Your task to perform on an android device: Go to sound settings Image 0: 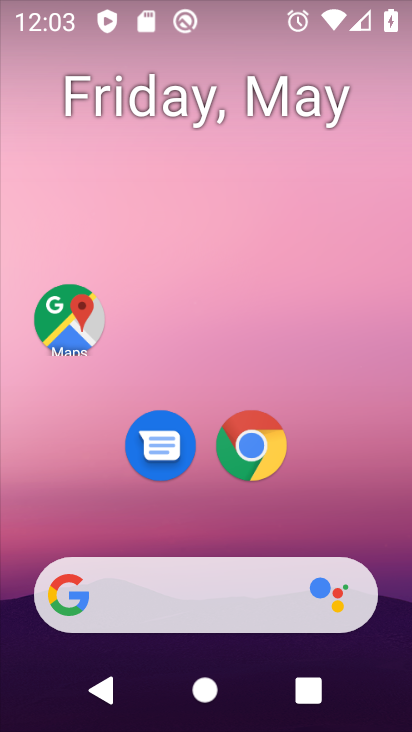
Step 0: drag from (379, 551) to (385, 23)
Your task to perform on an android device: Go to sound settings Image 1: 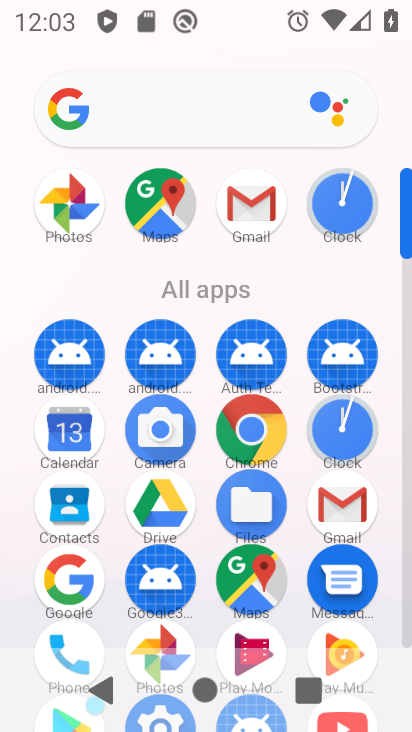
Step 1: drag from (408, 506) to (411, 460)
Your task to perform on an android device: Go to sound settings Image 2: 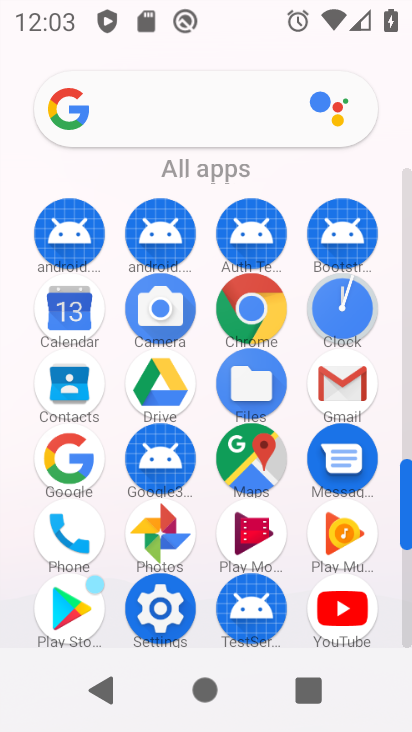
Step 2: click (155, 612)
Your task to perform on an android device: Go to sound settings Image 3: 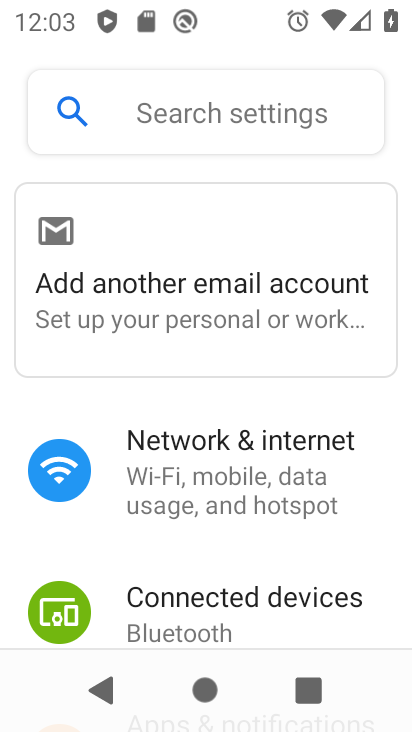
Step 3: drag from (372, 521) to (351, 179)
Your task to perform on an android device: Go to sound settings Image 4: 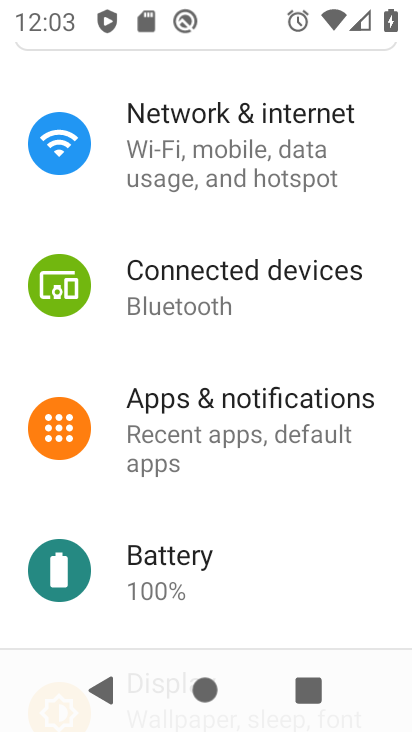
Step 4: drag from (337, 494) to (340, 155)
Your task to perform on an android device: Go to sound settings Image 5: 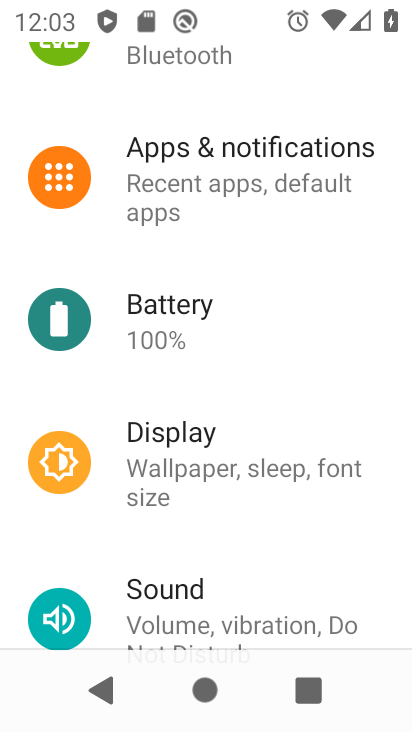
Step 5: drag from (386, 476) to (367, 179)
Your task to perform on an android device: Go to sound settings Image 6: 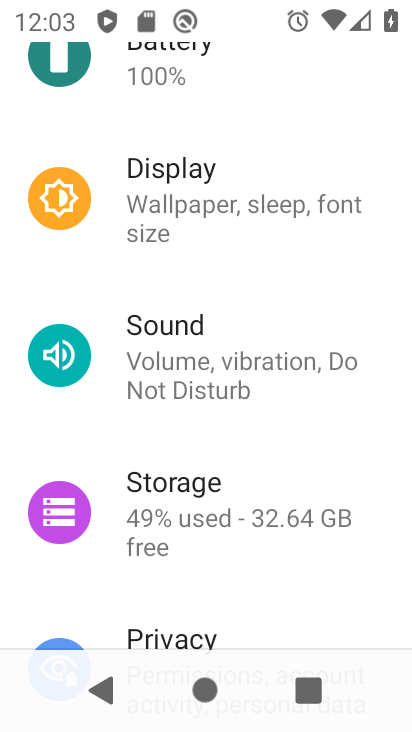
Step 6: click (156, 372)
Your task to perform on an android device: Go to sound settings Image 7: 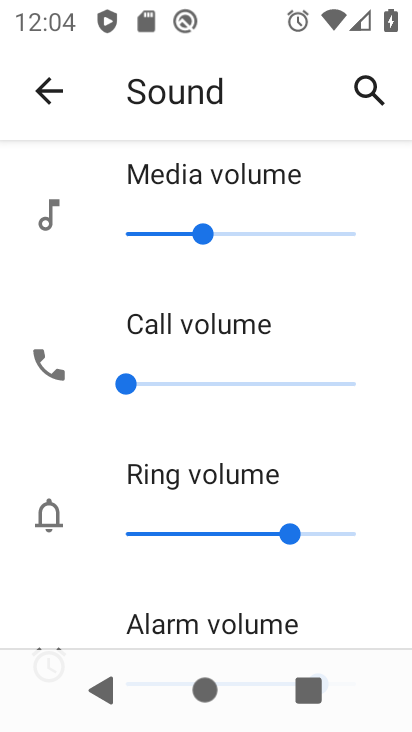
Step 7: task complete